Your task to perform on an android device: Open Maps and search for coffee Image 0: 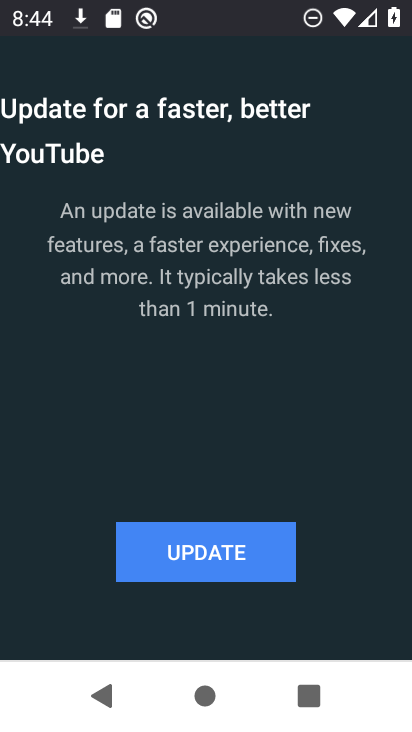
Step 0: press home button
Your task to perform on an android device: Open Maps and search for coffee Image 1: 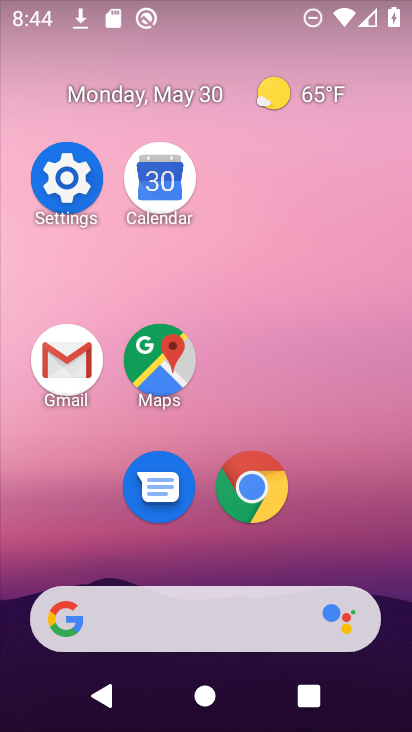
Step 1: click (169, 371)
Your task to perform on an android device: Open Maps and search for coffee Image 2: 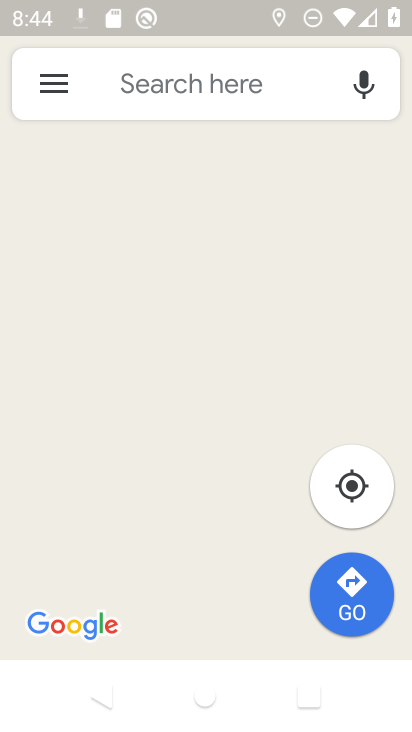
Step 2: click (182, 92)
Your task to perform on an android device: Open Maps and search for coffee Image 3: 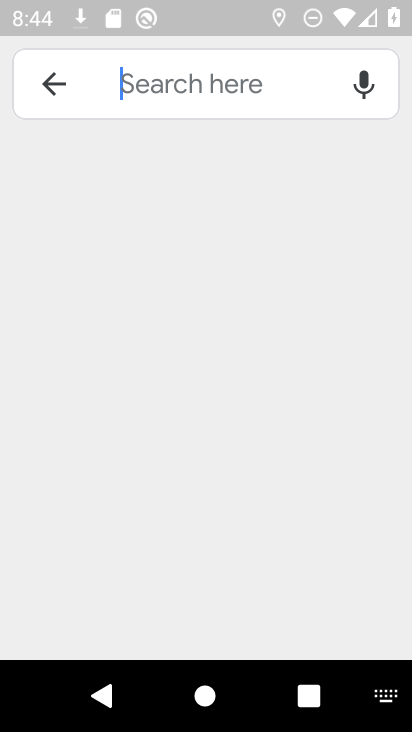
Step 3: type "coffee"
Your task to perform on an android device: Open Maps and search for coffee Image 4: 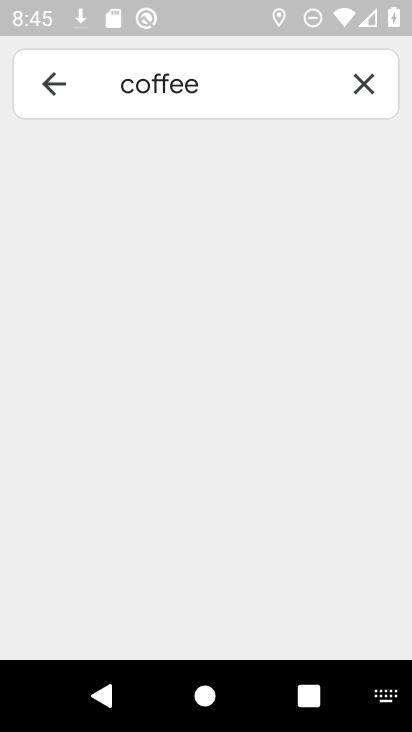
Step 4: task complete